Your task to perform on an android device: Search for beats solo 3 on target.com, select the first entry, add it to the cart, then select checkout. Image 0: 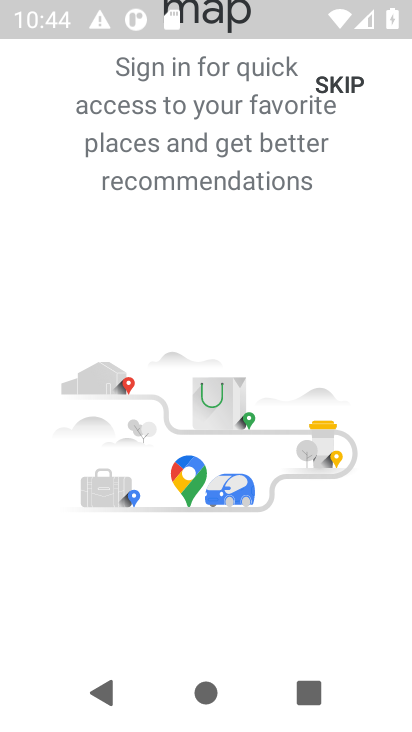
Step 0: press home button
Your task to perform on an android device: Search for beats solo 3 on target.com, select the first entry, add it to the cart, then select checkout. Image 1: 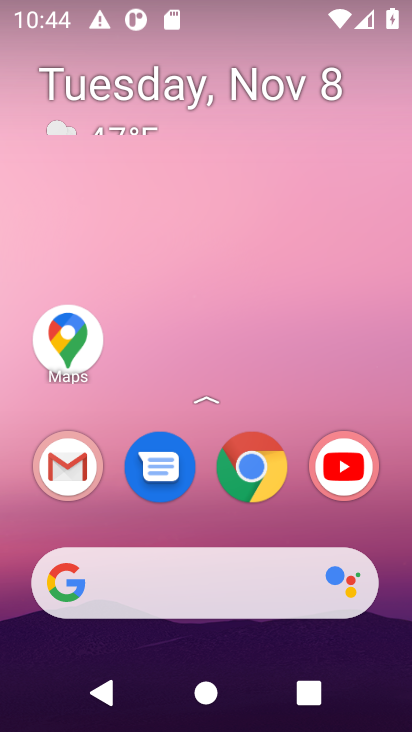
Step 1: click (134, 587)
Your task to perform on an android device: Search for beats solo 3 on target.com, select the first entry, add it to the cart, then select checkout. Image 2: 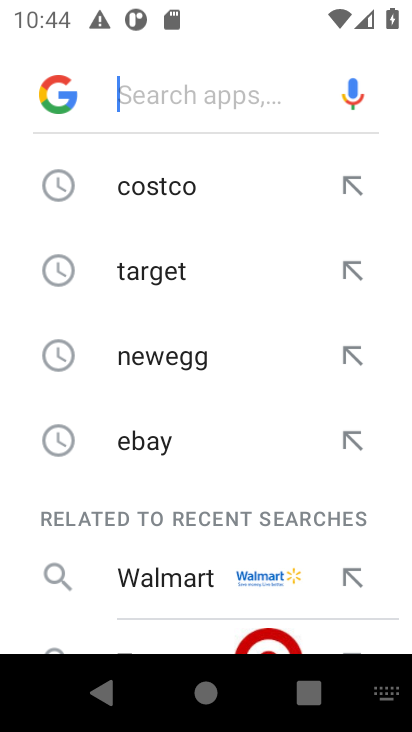
Step 2: click (187, 273)
Your task to perform on an android device: Search for beats solo 3 on target.com, select the first entry, add it to the cart, then select checkout. Image 3: 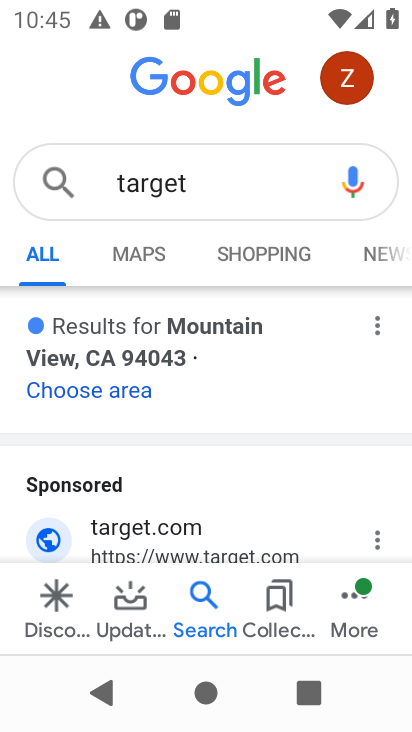
Step 3: click (136, 550)
Your task to perform on an android device: Search for beats solo 3 on target.com, select the first entry, add it to the cart, then select checkout. Image 4: 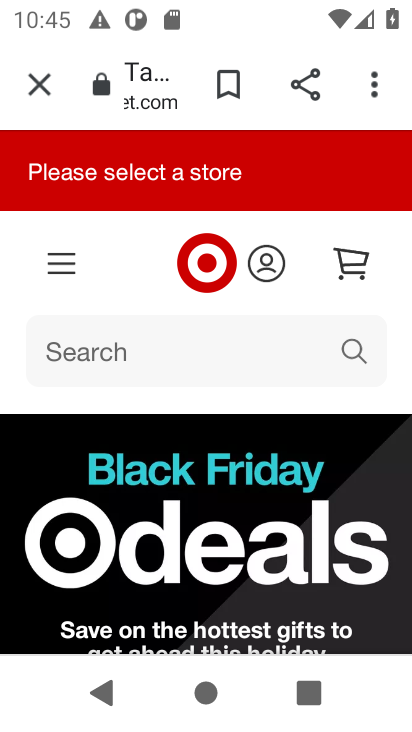
Step 4: task complete